Your task to perform on an android device: turn off airplane mode Image 0: 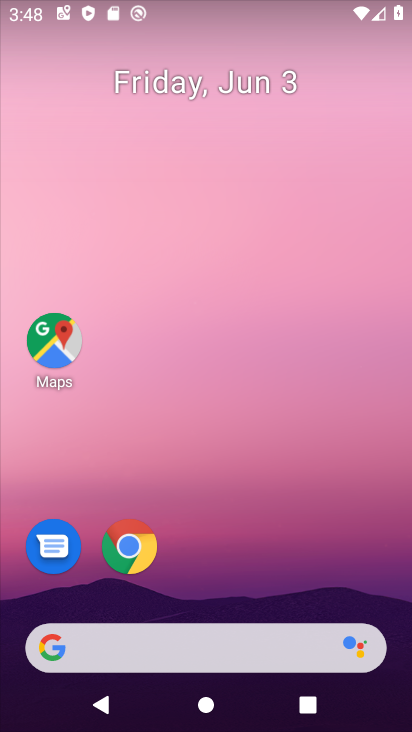
Step 0: drag from (225, 558) to (279, 4)
Your task to perform on an android device: turn off airplane mode Image 1: 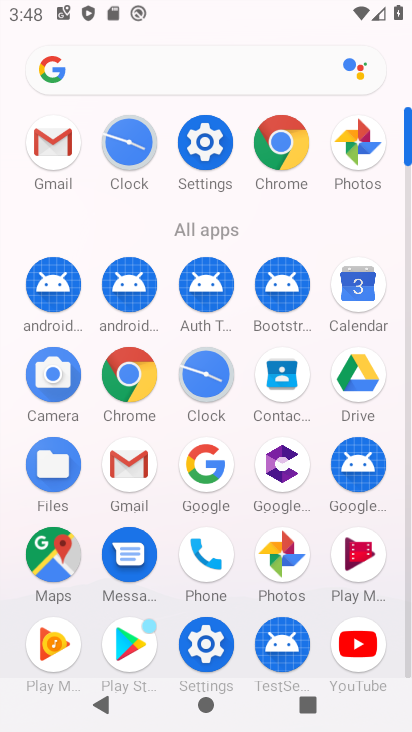
Step 1: click (210, 126)
Your task to perform on an android device: turn off airplane mode Image 2: 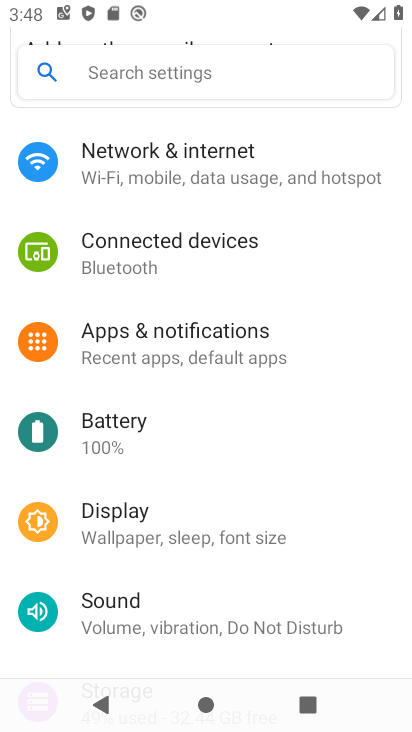
Step 2: click (210, 174)
Your task to perform on an android device: turn off airplane mode Image 3: 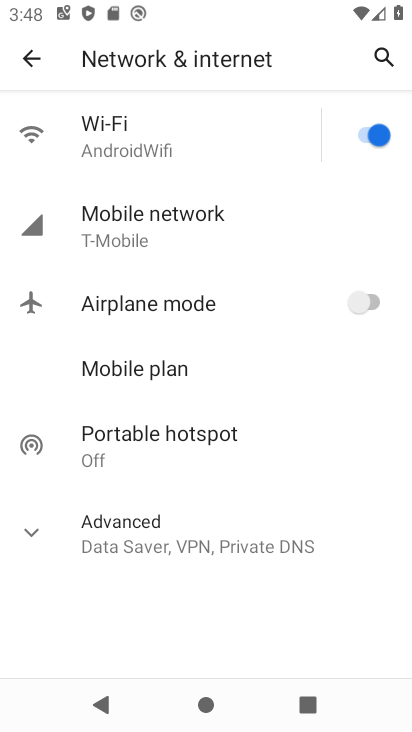
Step 3: task complete